Your task to perform on an android device: add a label to a message in the gmail app Image 0: 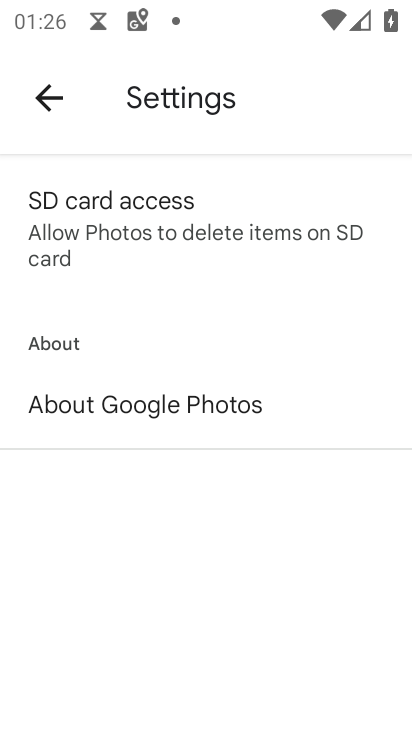
Step 0: press home button
Your task to perform on an android device: add a label to a message in the gmail app Image 1: 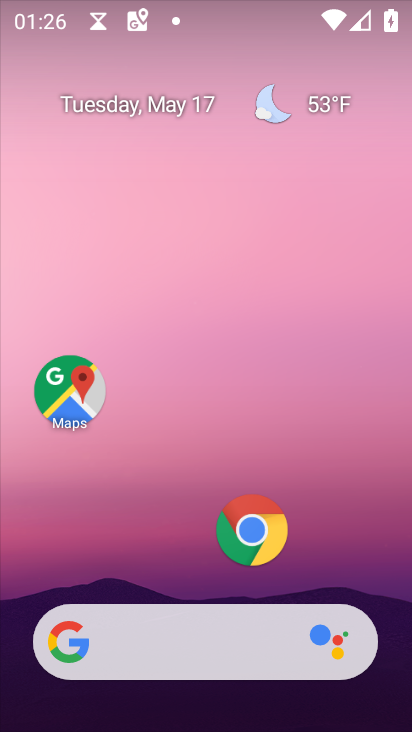
Step 1: drag from (317, 547) to (279, 197)
Your task to perform on an android device: add a label to a message in the gmail app Image 2: 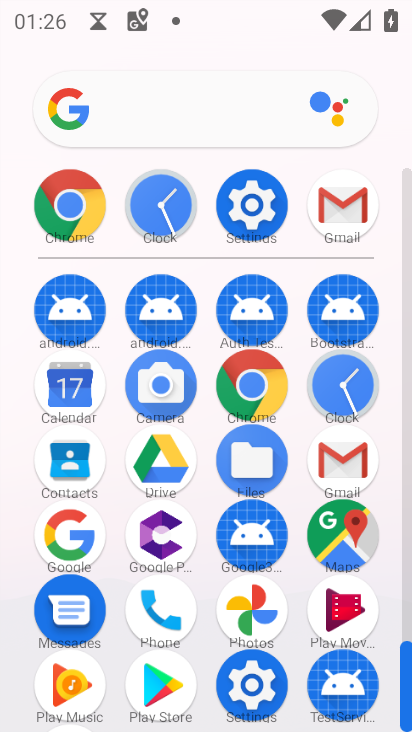
Step 2: click (339, 208)
Your task to perform on an android device: add a label to a message in the gmail app Image 3: 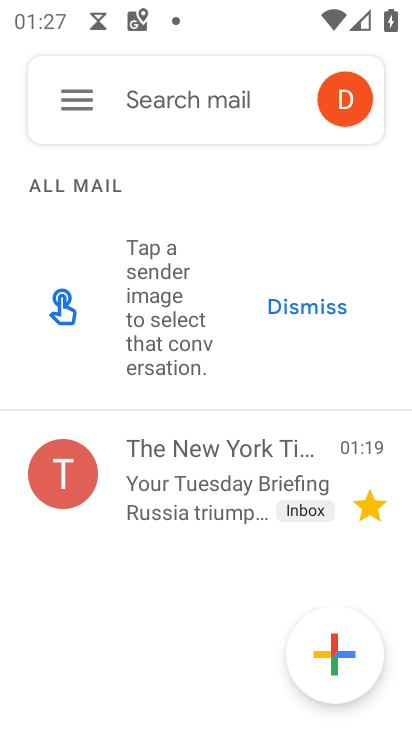
Step 3: click (251, 396)
Your task to perform on an android device: add a label to a message in the gmail app Image 4: 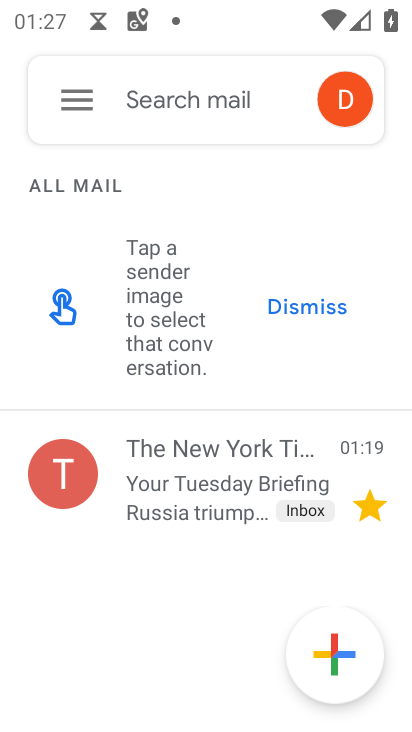
Step 4: click (251, 493)
Your task to perform on an android device: add a label to a message in the gmail app Image 5: 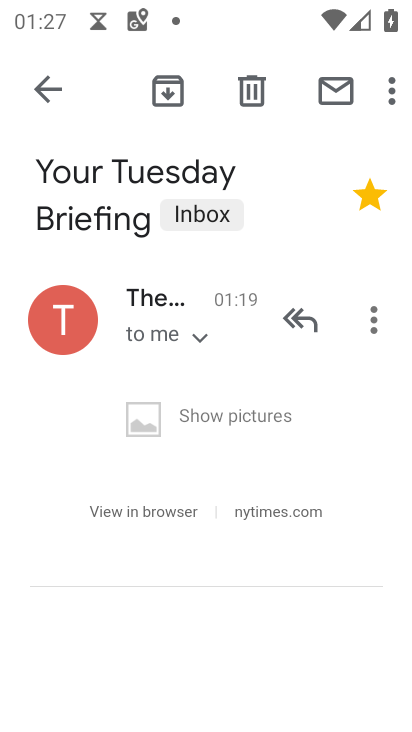
Step 5: click (391, 92)
Your task to perform on an android device: add a label to a message in the gmail app Image 6: 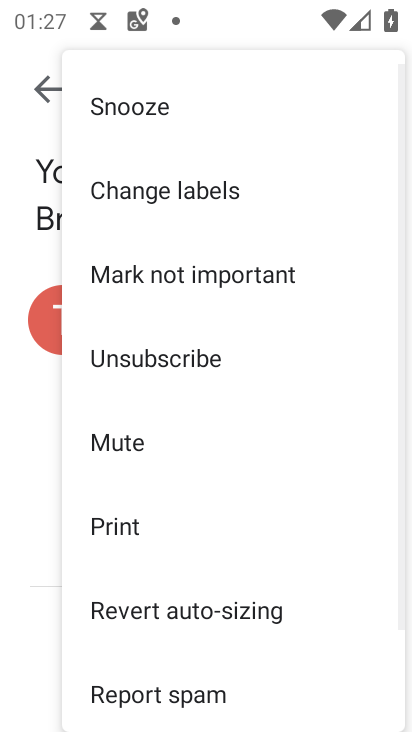
Step 6: click (231, 200)
Your task to perform on an android device: add a label to a message in the gmail app Image 7: 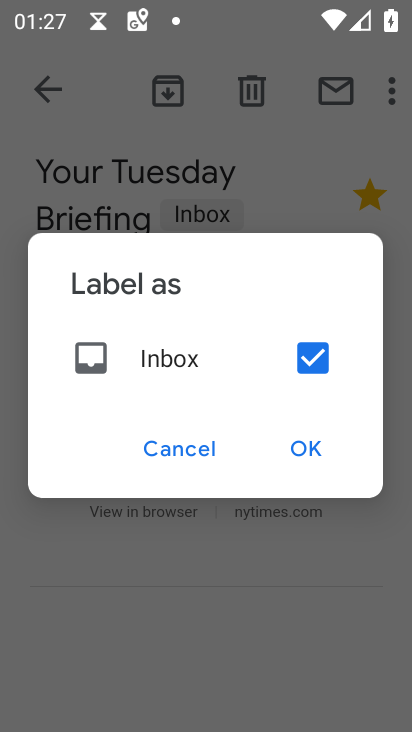
Step 7: click (306, 456)
Your task to perform on an android device: add a label to a message in the gmail app Image 8: 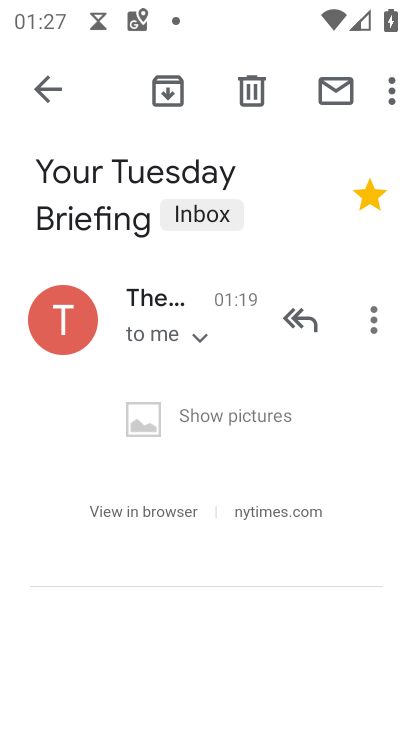
Step 8: task complete